Your task to perform on an android device: turn off sleep mode Image 0: 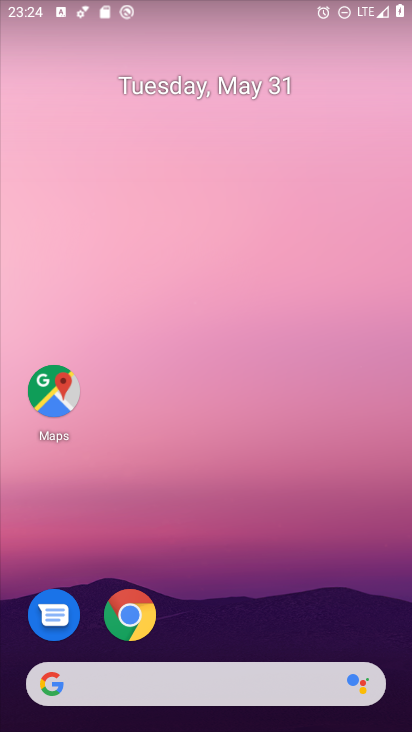
Step 0: drag from (363, 621) to (260, 139)
Your task to perform on an android device: turn off sleep mode Image 1: 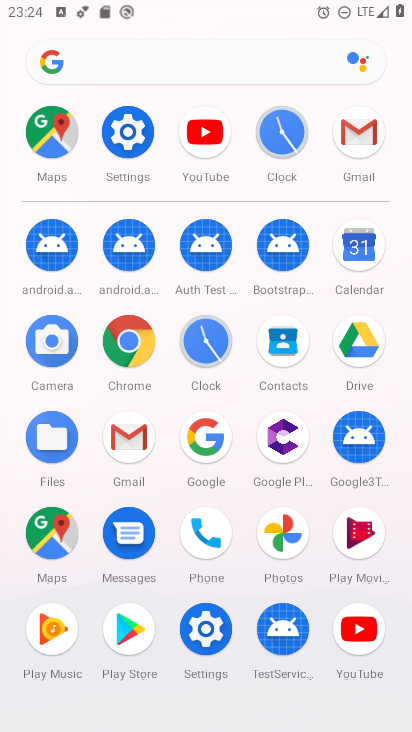
Step 1: click (206, 627)
Your task to perform on an android device: turn off sleep mode Image 2: 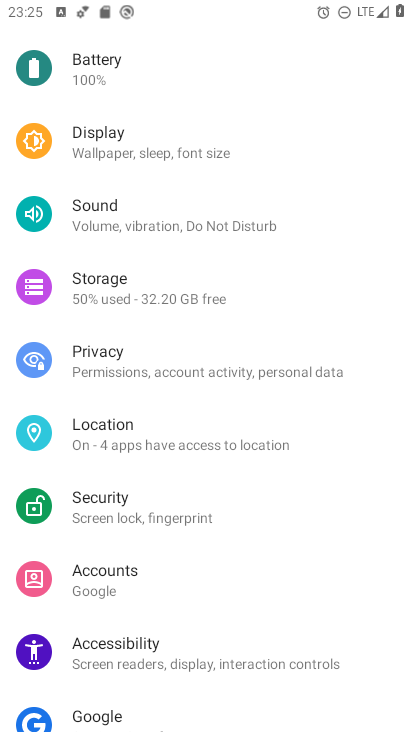
Step 2: click (149, 144)
Your task to perform on an android device: turn off sleep mode Image 3: 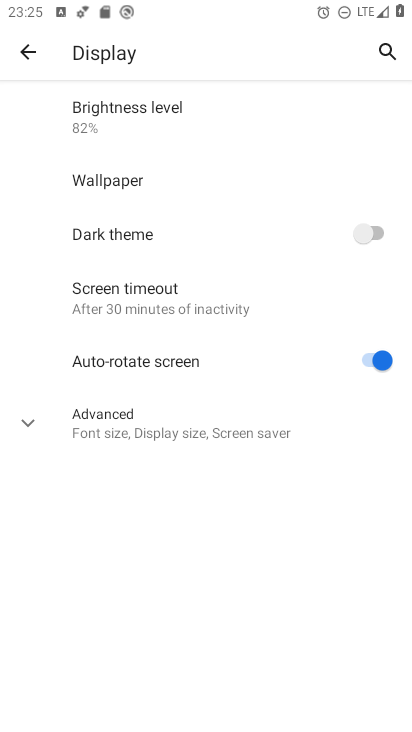
Step 3: click (37, 421)
Your task to perform on an android device: turn off sleep mode Image 4: 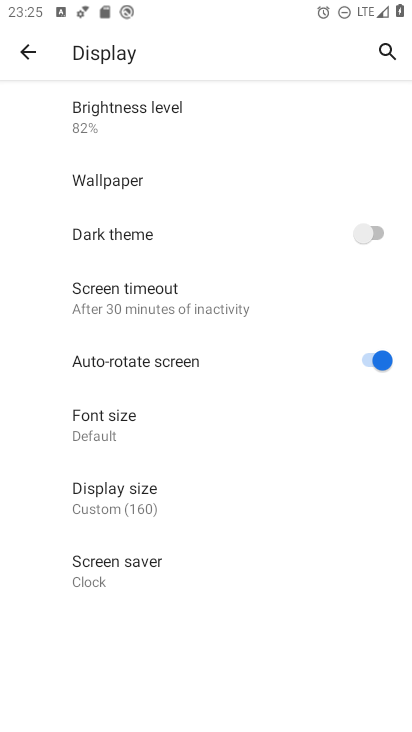
Step 4: task complete